Your task to perform on an android device: change the clock display to show seconds Image 0: 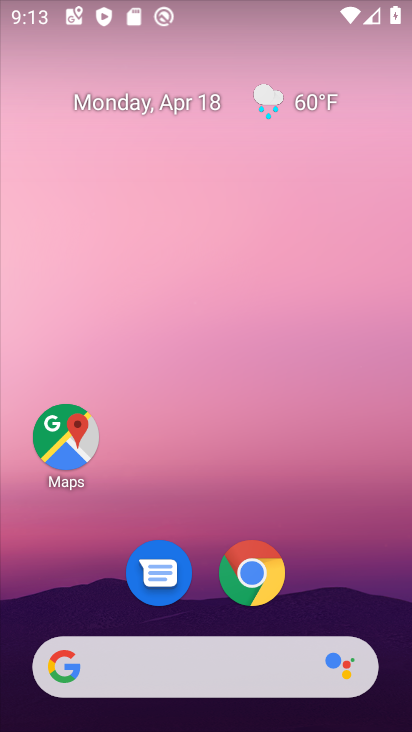
Step 0: drag from (207, 727) to (212, 89)
Your task to perform on an android device: change the clock display to show seconds Image 1: 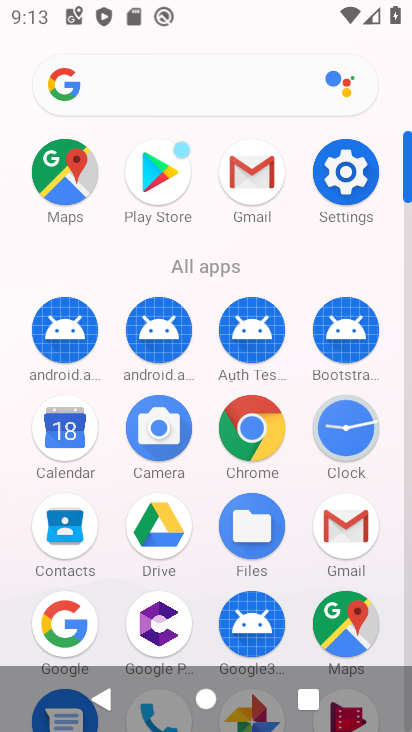
Step 1: click (341, 431)
Your task to perform on an android device: change the clock display to show seconds Image 2: 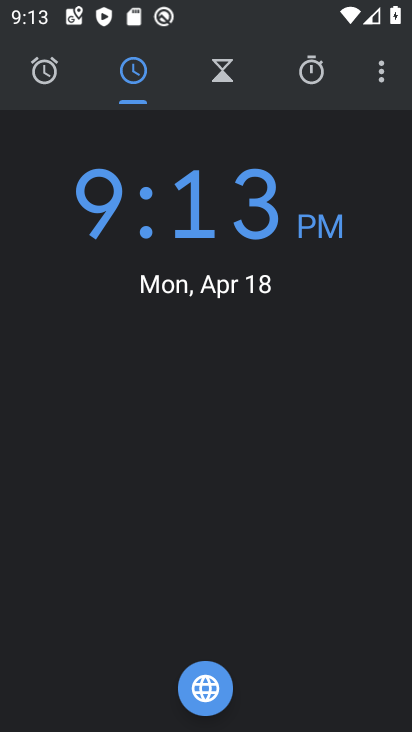
Step 2: click (381, 68)
Your task to perform on an android device: change the clock display to show seconds Image 3: 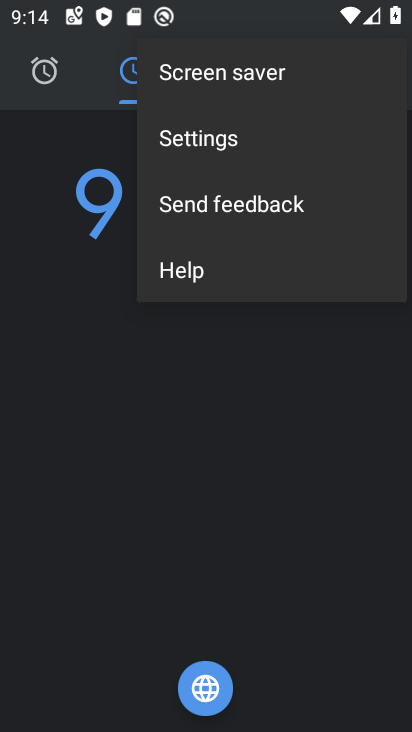
Step 3: click (208, 138)
Your task to perform on an android device: change the clock display to show seconds Image 4: 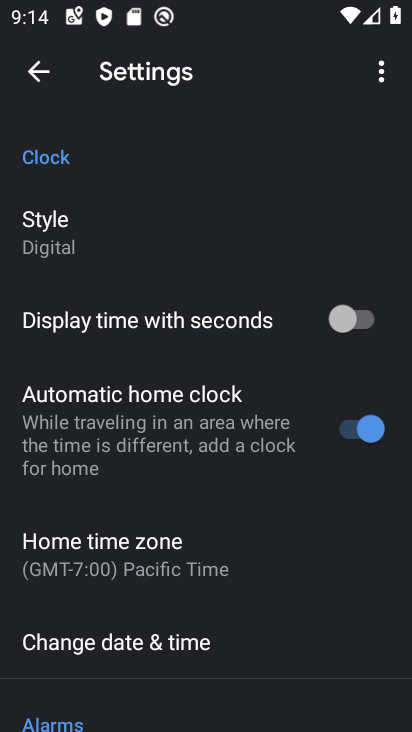
Step 4: click (362, 315)
Your task to perform on an android device: change the clock display to show seconds Image 5: 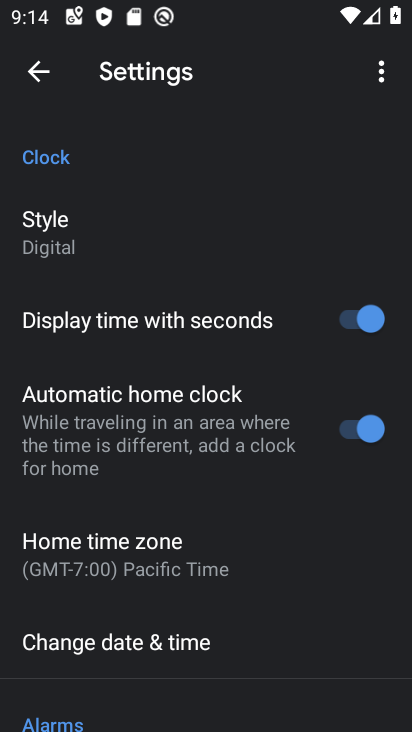
Step 5: task complete